Your task to perform on an android device: delete location history Image 0: 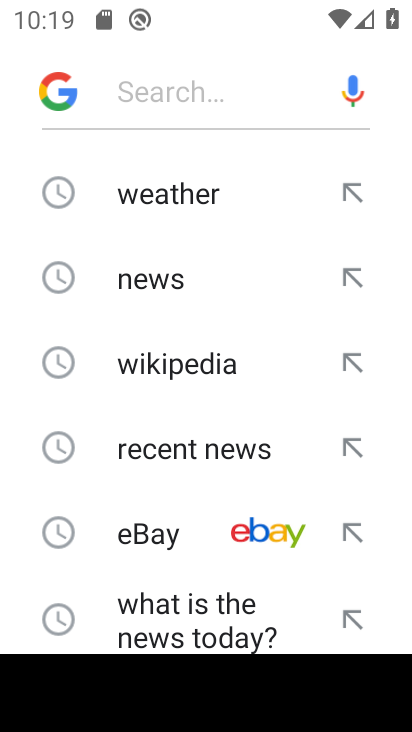
Step 0: press home button
Your task to perform on an android device: delete location history Image 1: 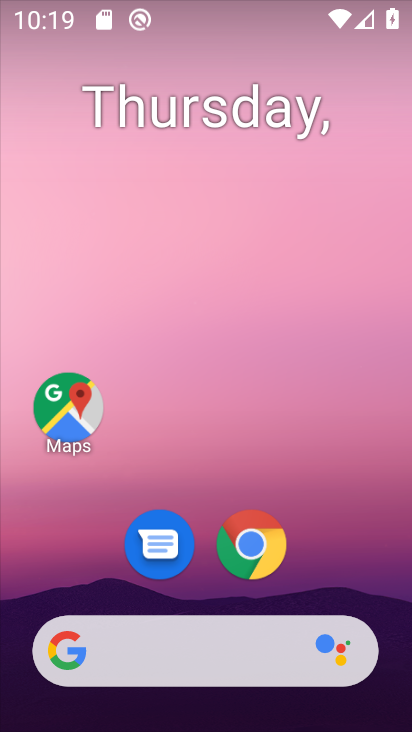
Step 1: click (74, 425)
Your task to perform on an android device: delete location history Image 2: 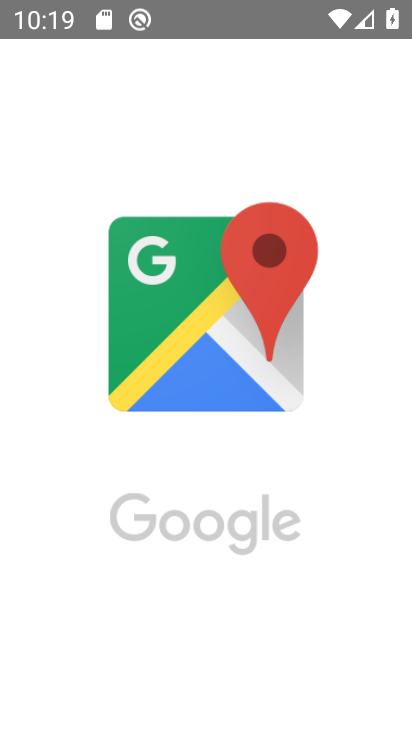
Step 2: click (212, 362)
Your task to perform on an android device: delete location history Image 3: 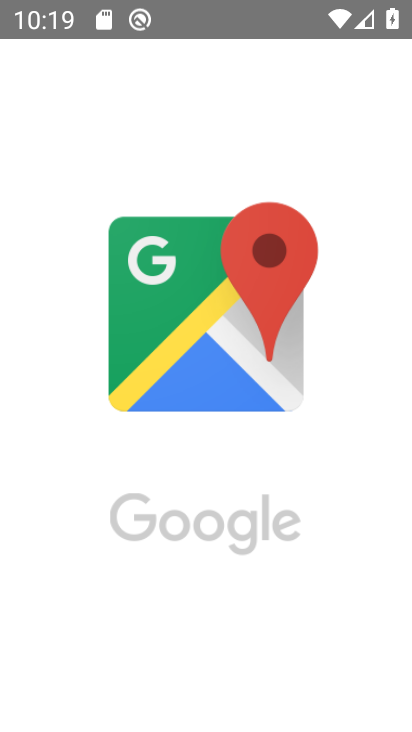
Step 3: drag from (212, 336) to (203, 551)
Your task to perform on an android device: delete location history Image 4: 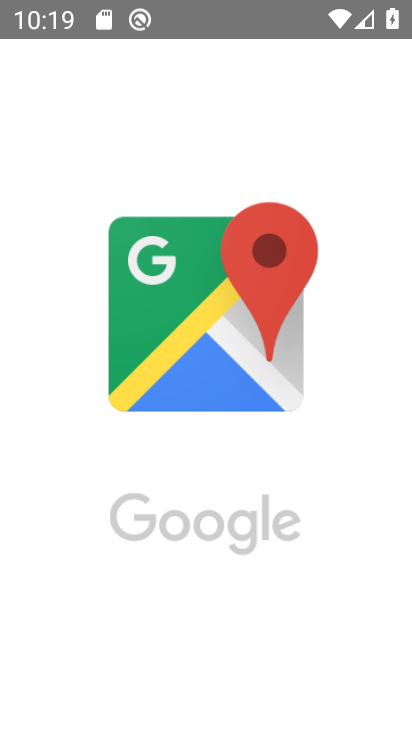
Step 4: click (233, 322)
Your task to perform on an android device: delete location history Image 5: 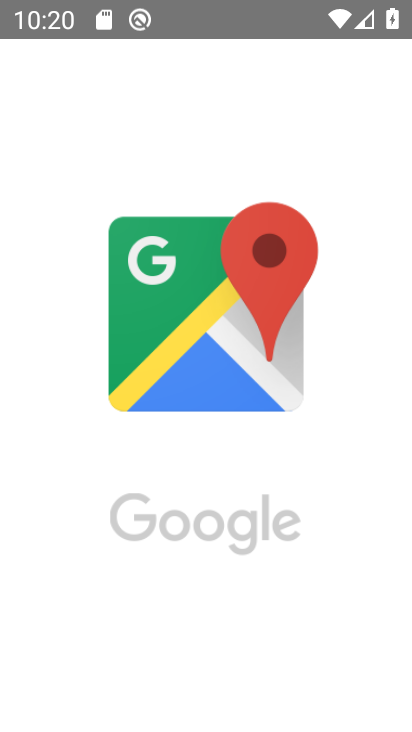
Step 5: task complete